Your task to perform on an android device: Open my contact list Image 0: 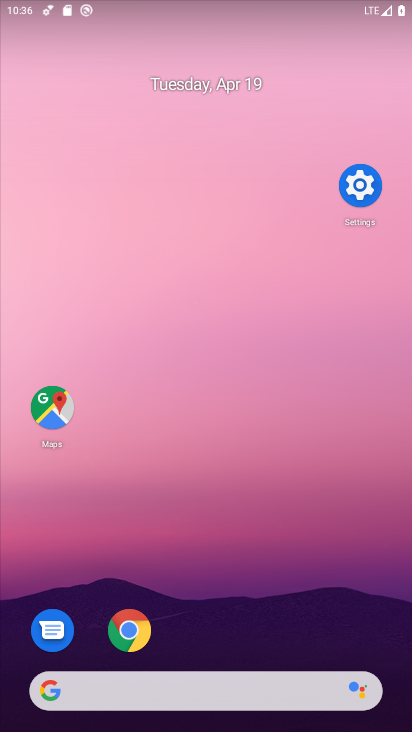
Step 0: drag from (270, 655) to (304, 217)
Your task to perform on an android device: Open my contact list Image 1: 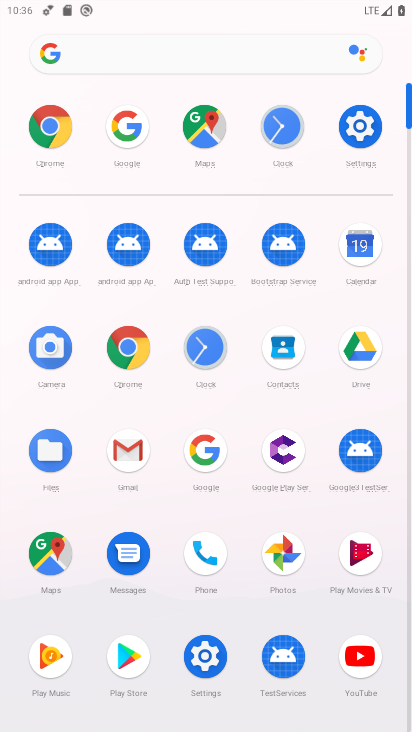
Step 1: click (290, 352)
Your task to perform on an android device: Open my contact list Image 2: 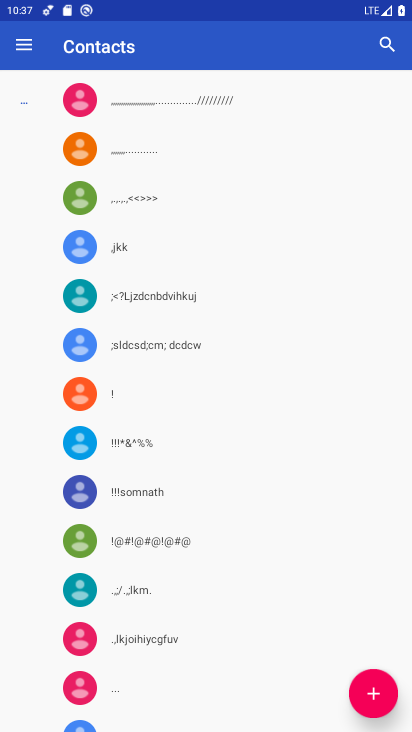
Step 2: task complete